Your task to perform on an android device: Show me the alarms in the clock app Image 0: 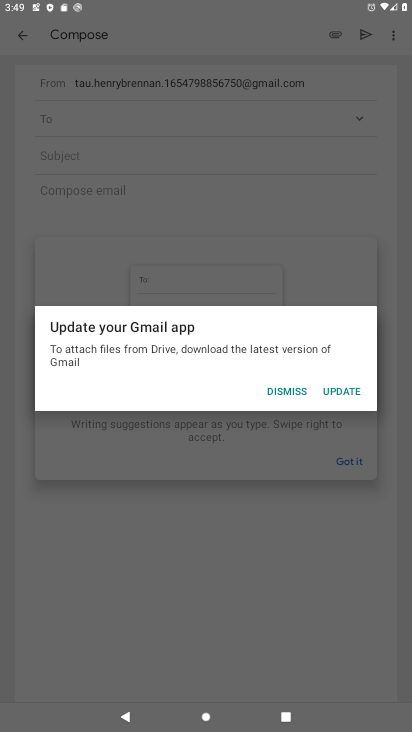
Step 0: press home button
Your task to perform on an android device: Show me the alarms in the clock app Image 1: 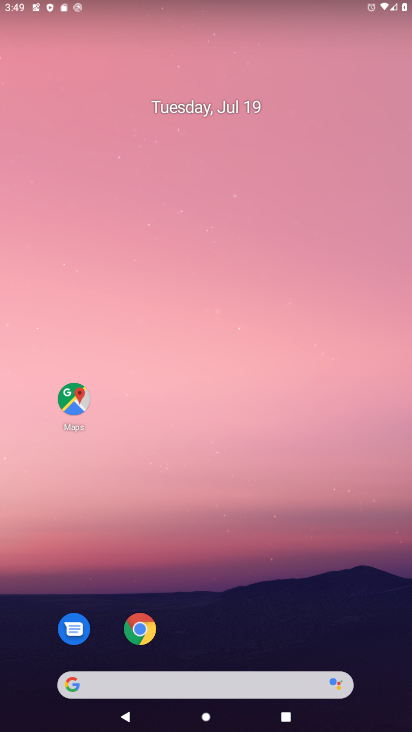
Step 1: drag from (161, 583) to (161, 298)
Your task to perform on an android device: Show me the alarms in the clock app Image 2: 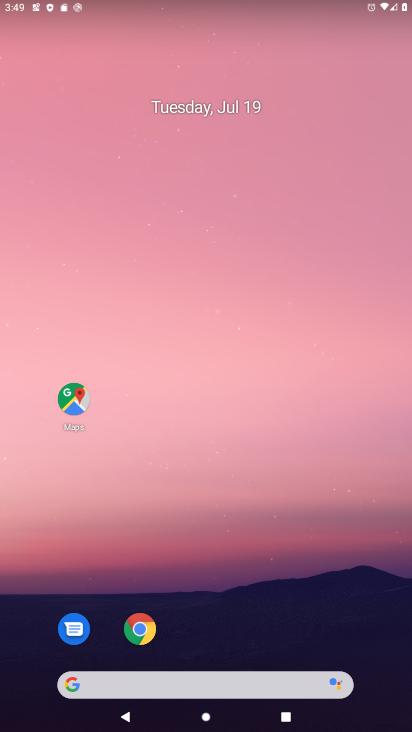
Step 2: drag from (215, 274) to (215, 111)
Your task to perform on an android device: Show me the alarms in the clock app Image 3: 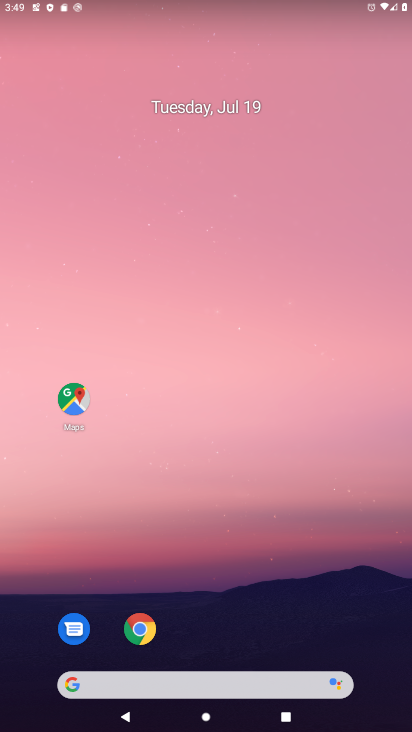
Step 3: drag from (207, 671) to (207, 205)
Your task to perform on an android device: Show me the alarms in the clock app Image 4: 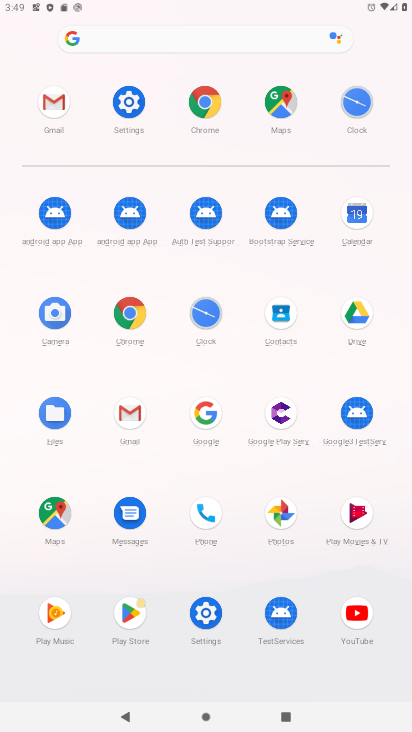
Step 4: click (218, 312)
Your task to perform on an android device: Show me the alarms in the clock app Image 5: 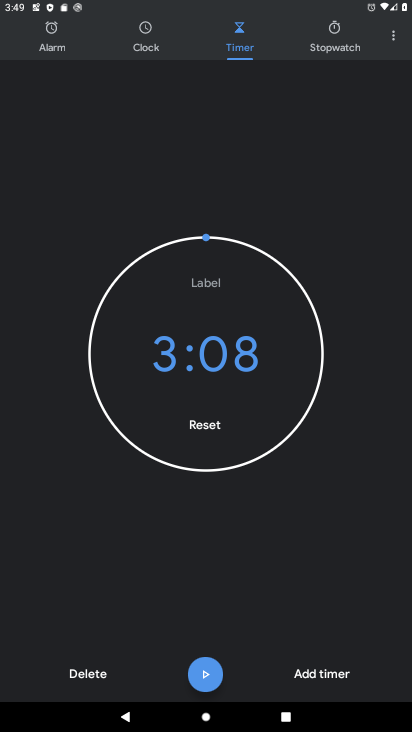
Step 5: click (48, 38)
Your task to perform on an android device: Show me the alarms in the clock app Image 6: 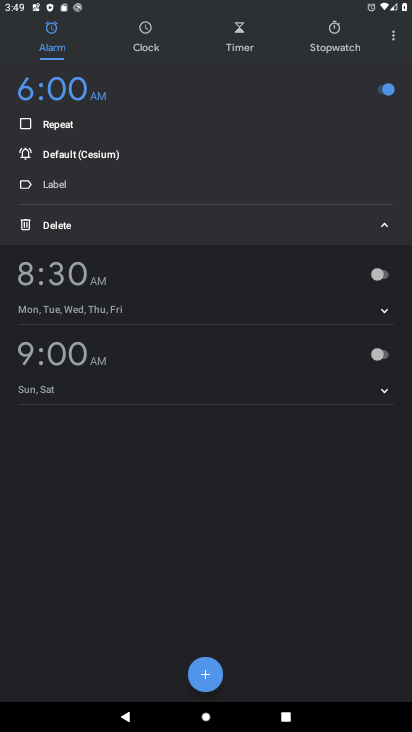
Step 6: task complete